Your task to perform on an android device: Open Amazon Image 0: 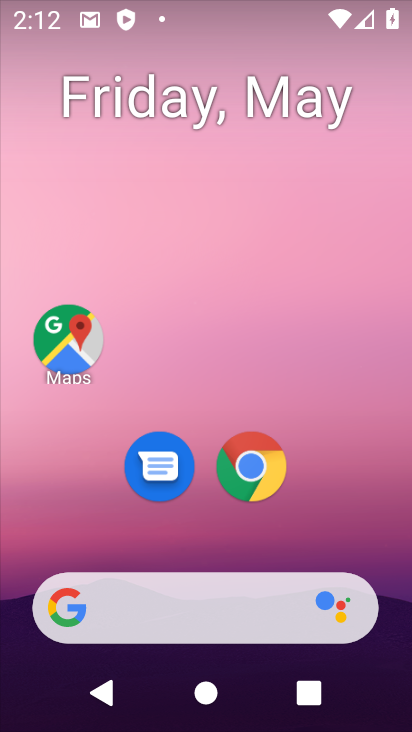
Step 0: click (247, 466)
Your task to perform on an android device: Open Amazon Image 1: 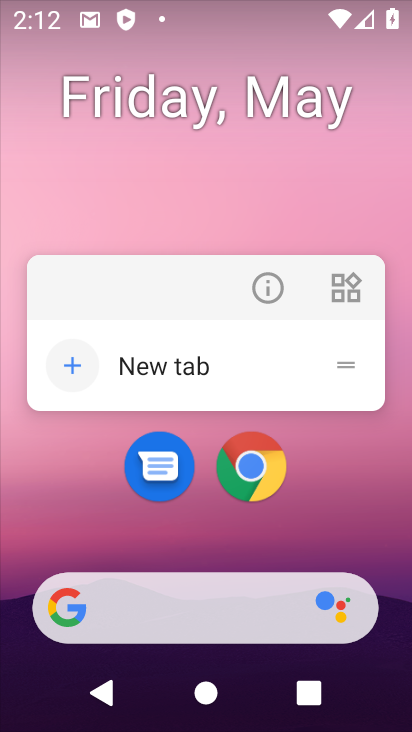
Step 1: click (324, 504)
Your task to perform on an android device: Open Amazon Image 2: 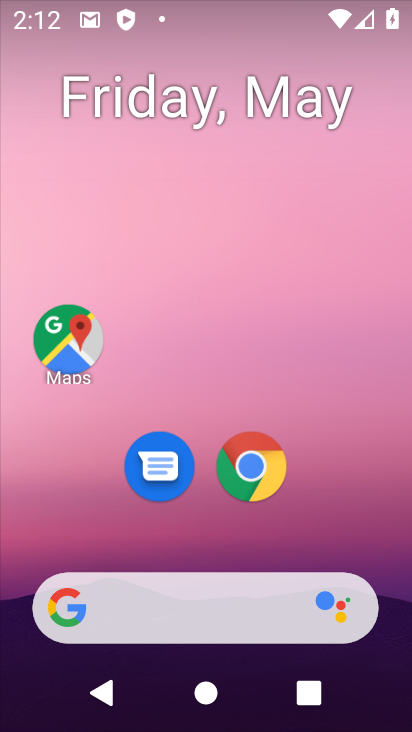
Step 2: click (259, 462)
Your task to perform on an android device: Open Amazon Image 3: 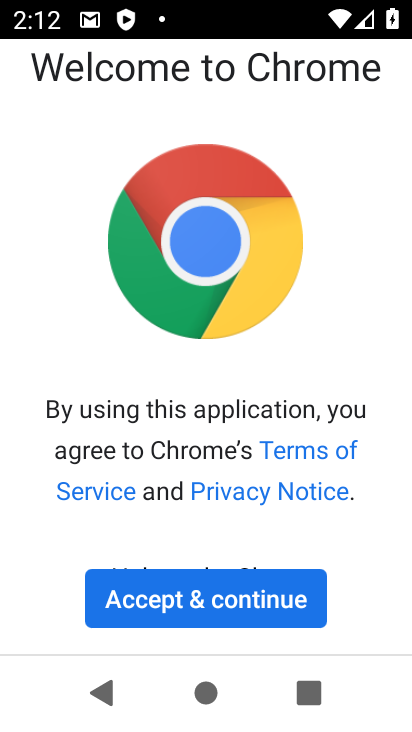
Step 3: click (218, 587)
Your task to perform on an android device: Open Amazon Image 4: 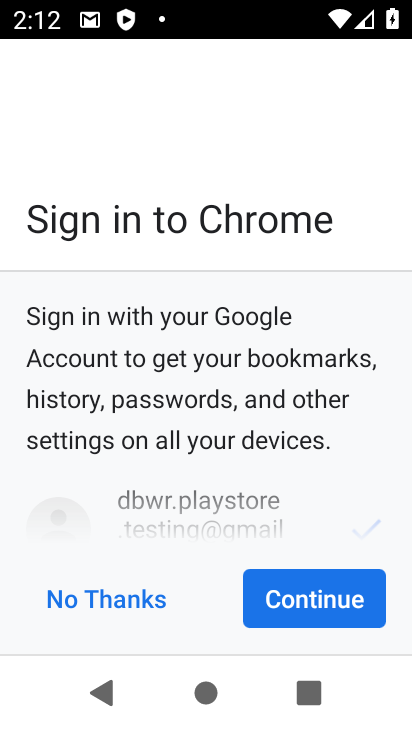
Step 4: click (353, 591)
Your task to perform on an android device: Open Amazon Image 5: 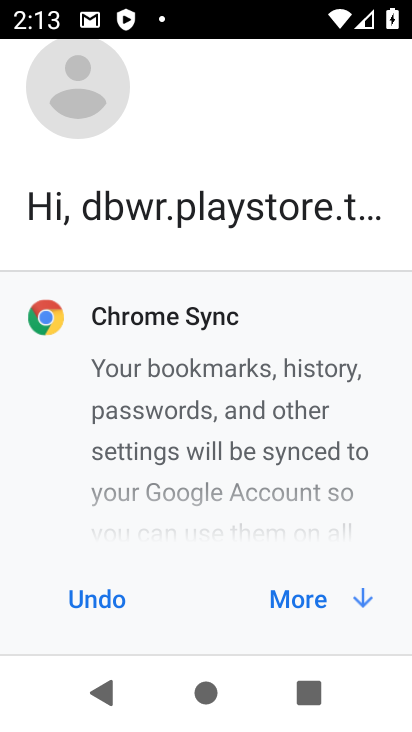
Step 5: click (339, 605)
Your task to perform on an android device: Open Amazon Image 6: 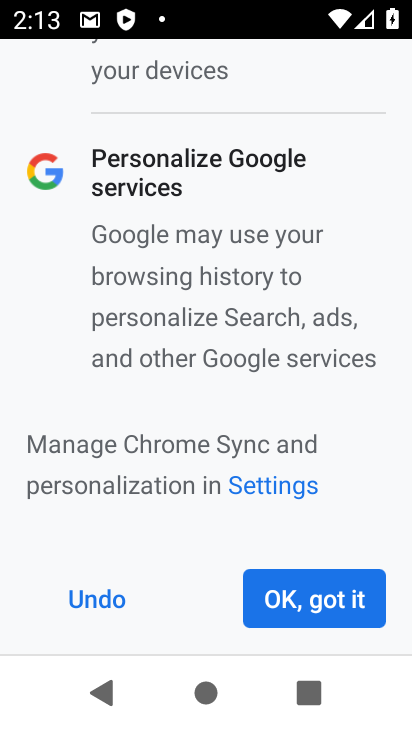
Step 6: click (339, 605)
Your task to perform on an android device: Open Amazon Image 7: 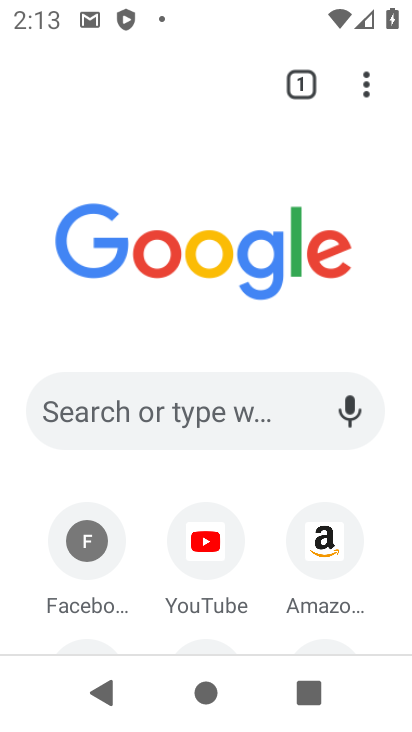
Step 7: click (331, 534)
Your task to perform on an android device: Open Amazon Image 8: 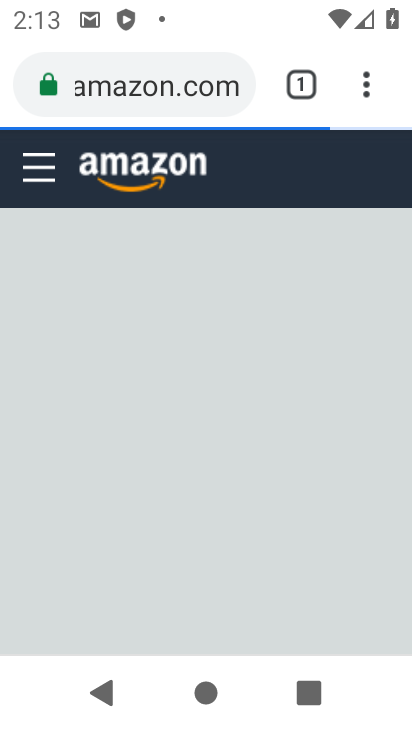
Step 8: task complete